Your task to perform on an android device: turn on translation in the chrome app Image 0: 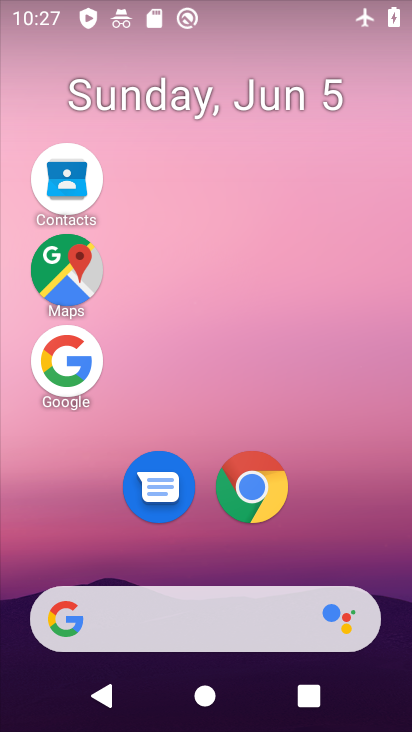
Step 0: drag from (243, 610) to (285, 122)
Your task to perform on an android device: turn on translation in the chrome app Image 1: 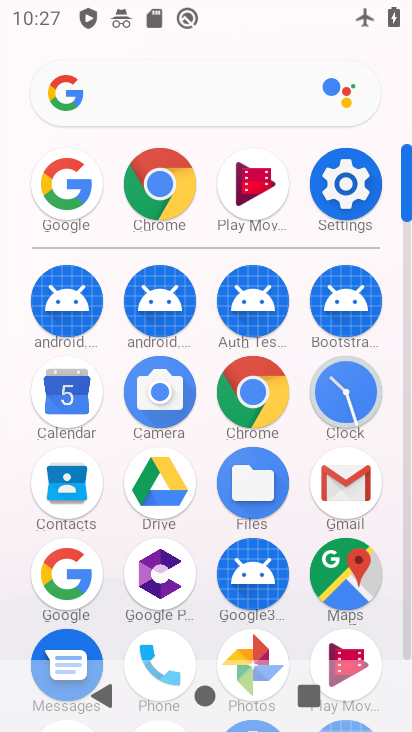
Step 1: click (178, 197)
Your task to perform on an android device: turn on translation in the chrome app Image 2: 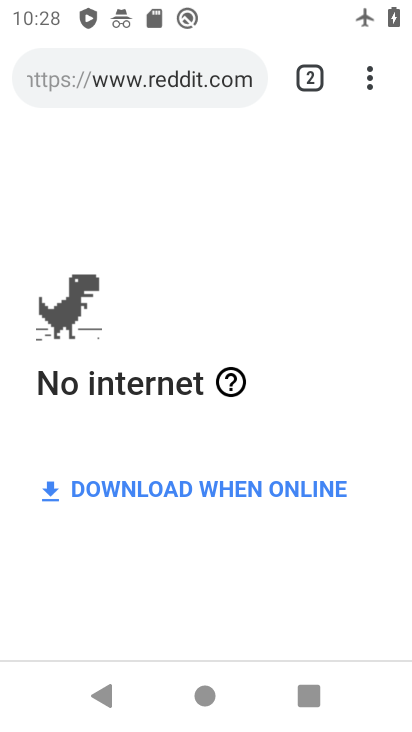
Step 2: click (368, 84)
Your task to perform on an android device: turn on translation in the chrome app Image 3: 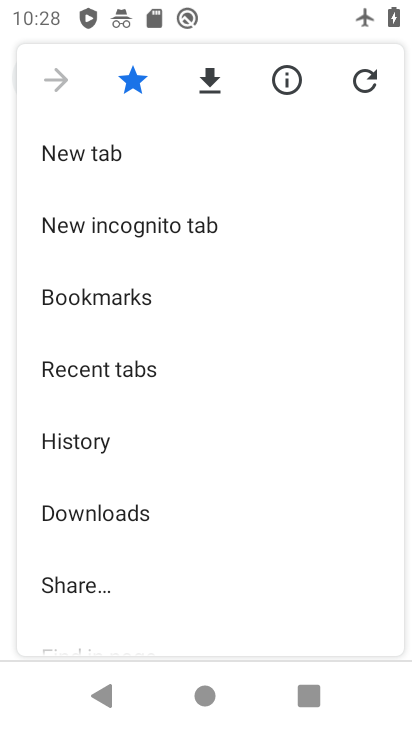
Step 3: task complete